Your task to perform on an android device: Go to battery settings Image 0: 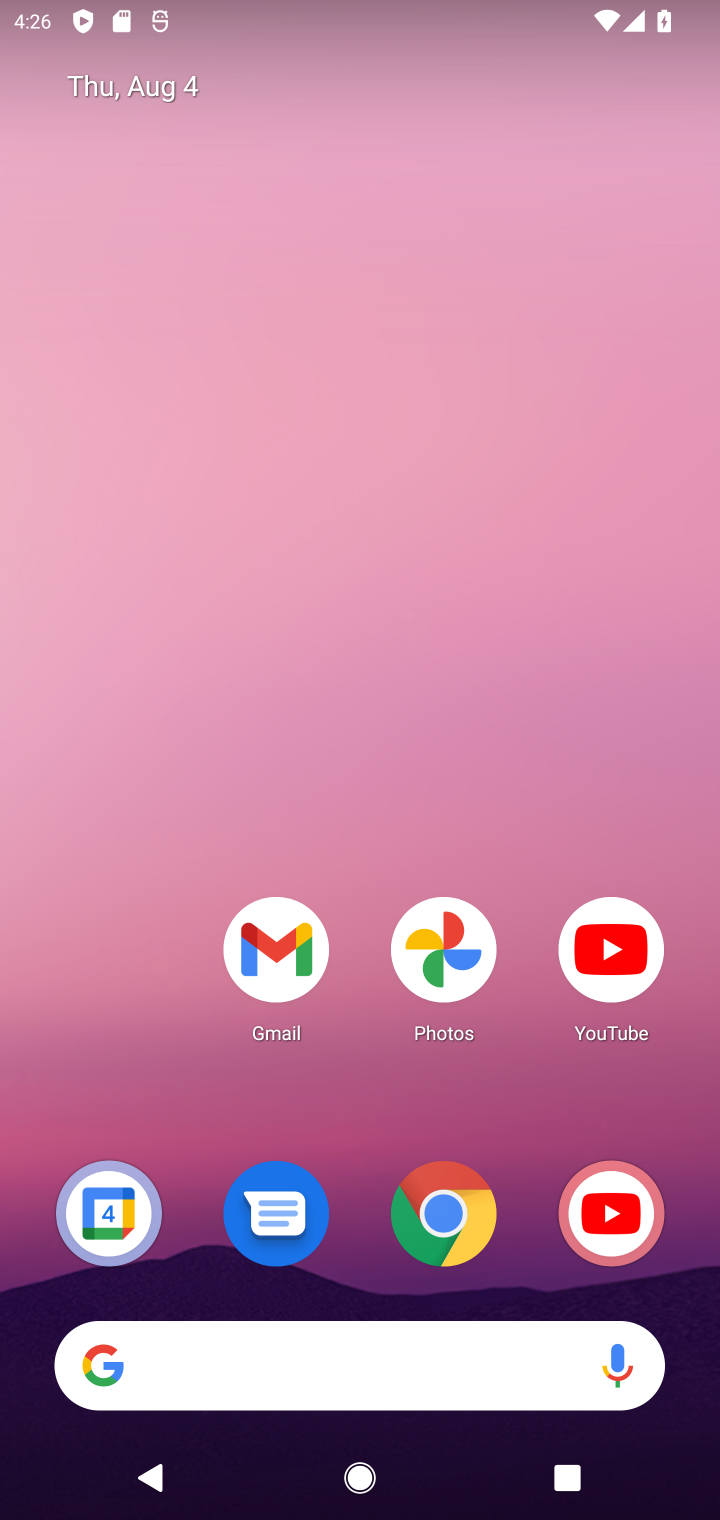
Step 0: press home button
Your task to perform on an android device: Go to battery settings Image 1: 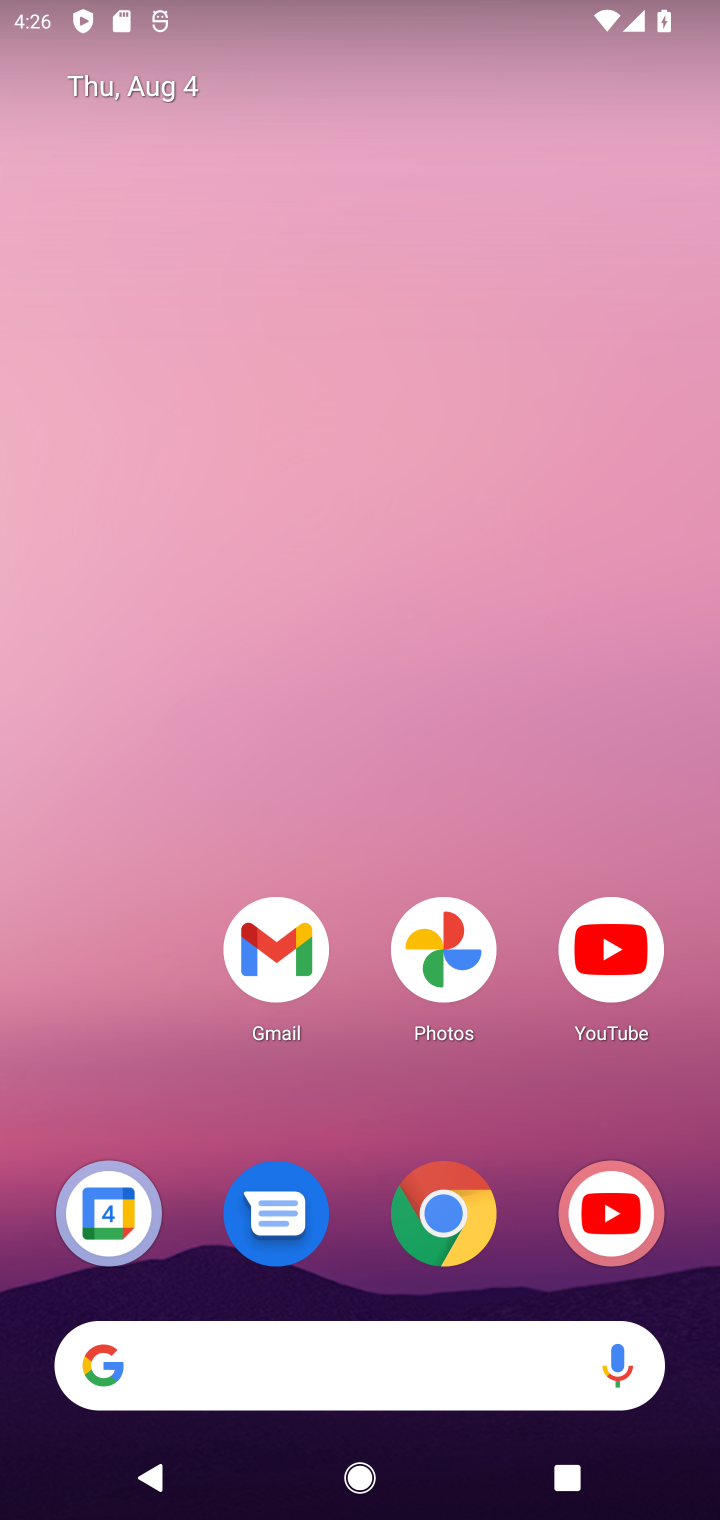
Step 1: drag from (57, 1101) to (106, 325)
Your task to perform on an android device: Go to battery settings Image 2: 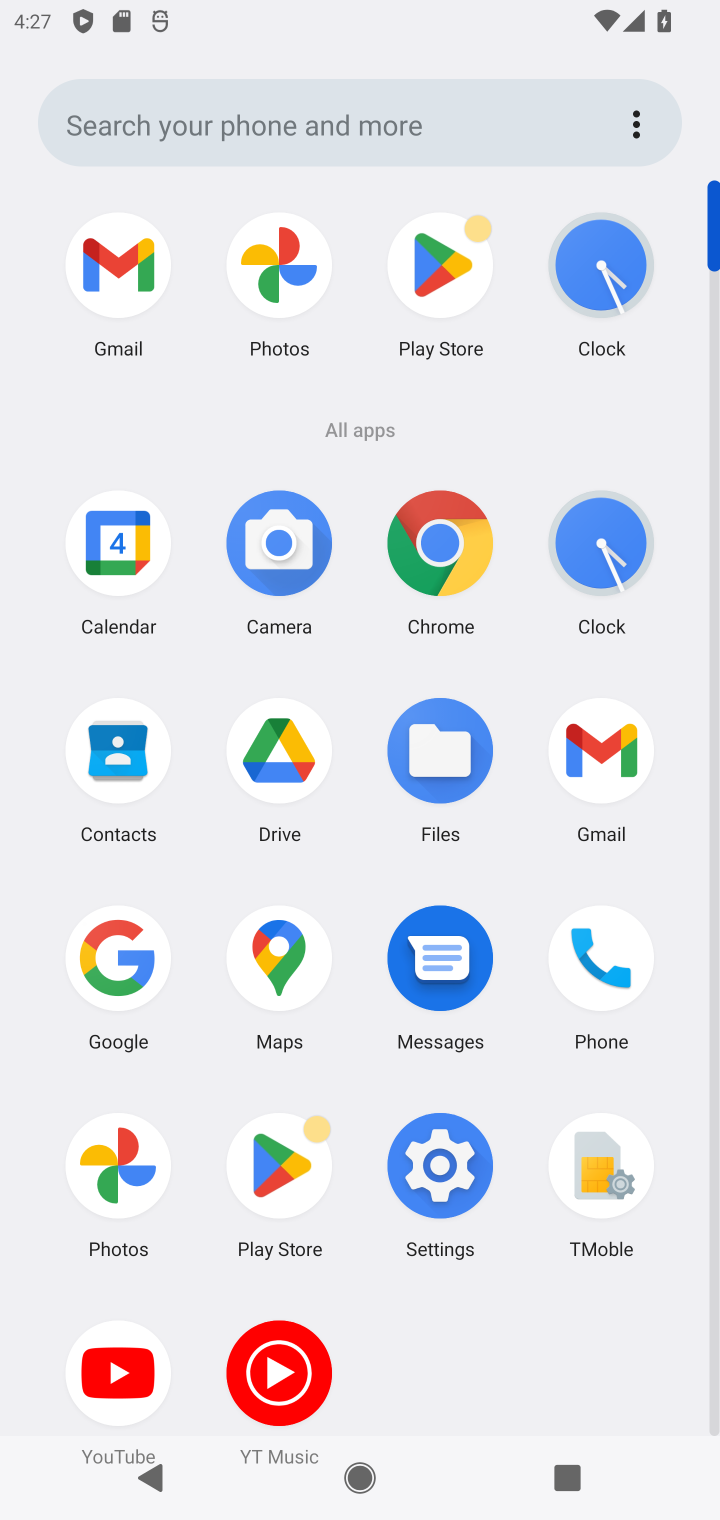
Step 2: click (448, 1172)
Your task to perform on an android device: Go to battery settings Image 3: 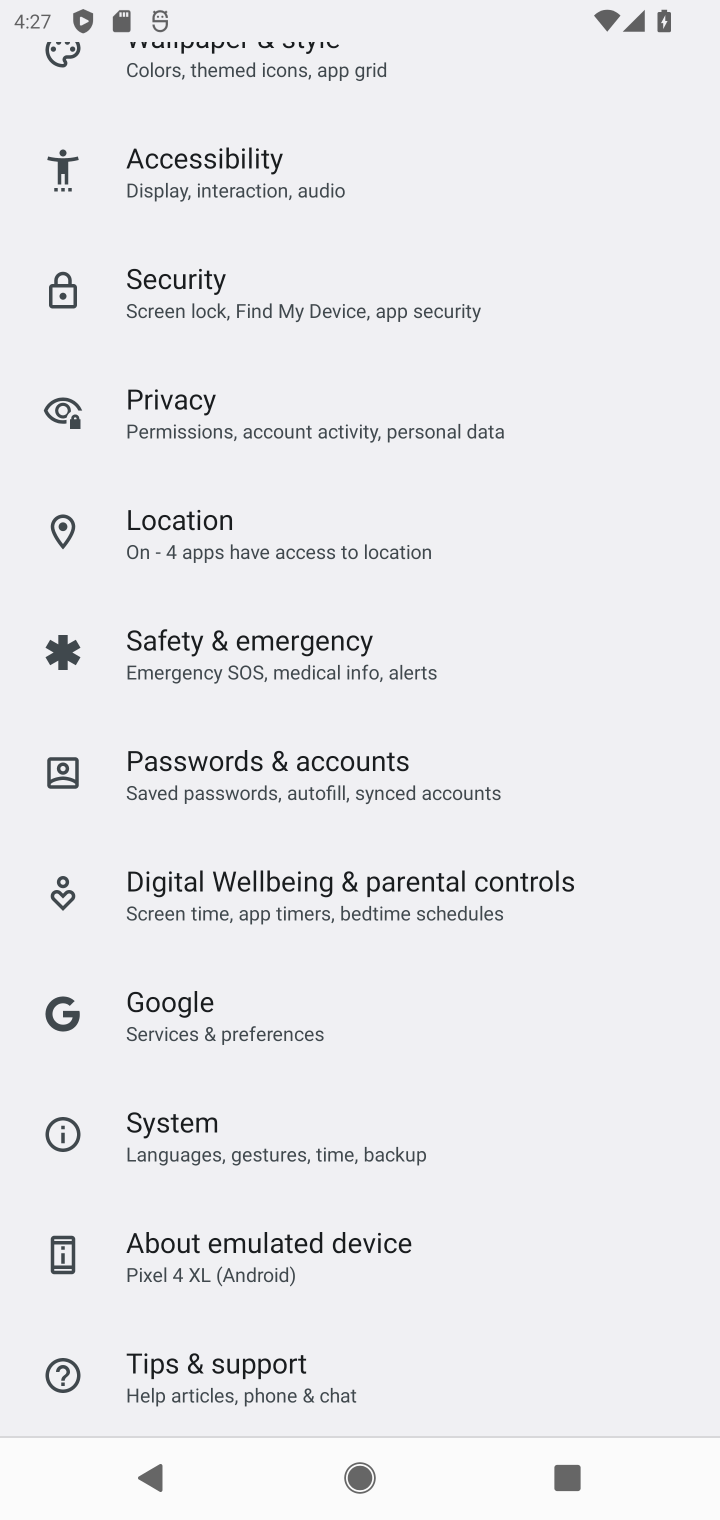
Step 3: drag from (515, 1190) to (588, 894)
Your task to perform on an android device: Go to battery settings Image 4: 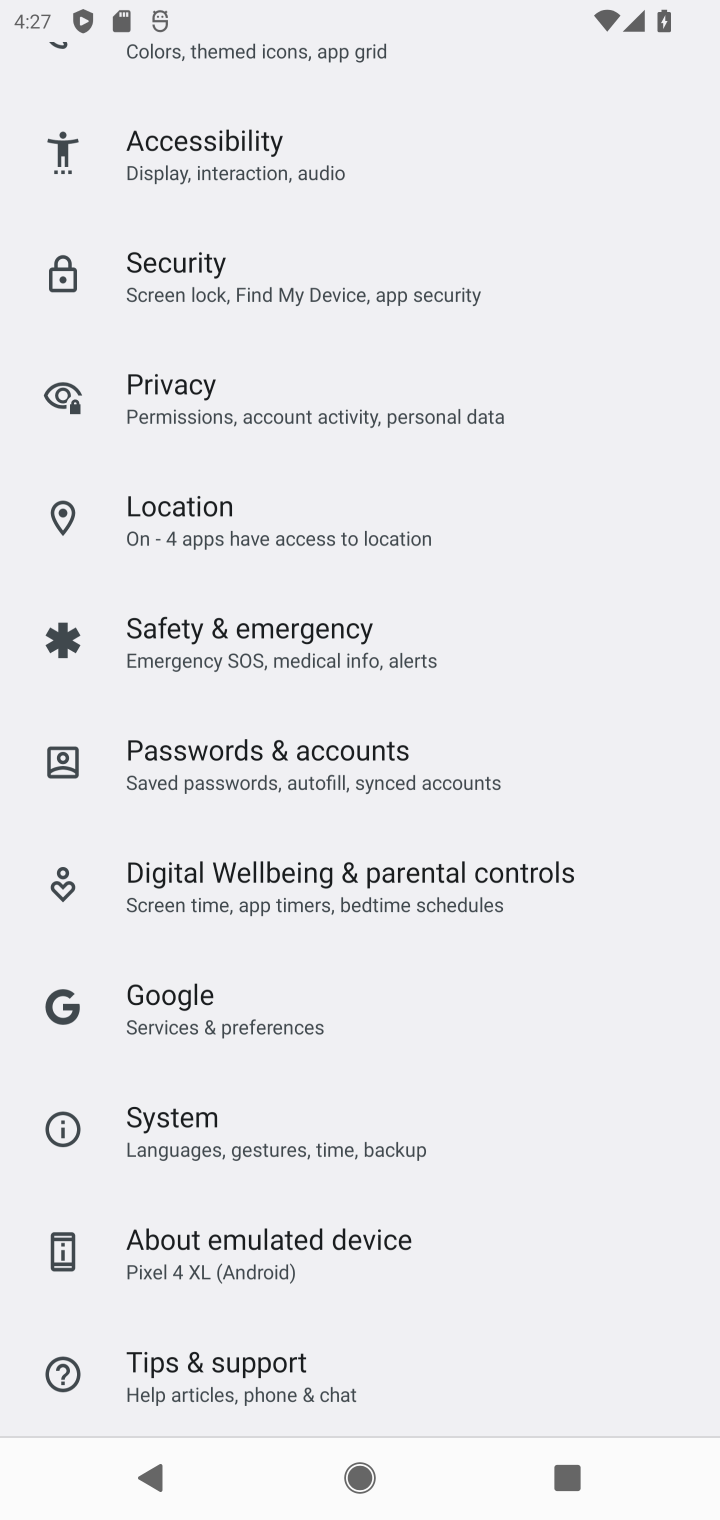
Step 4: drag from (586, 594) to (590, 841)
Your task to perform on an android device: Go to battery settings Image 5: 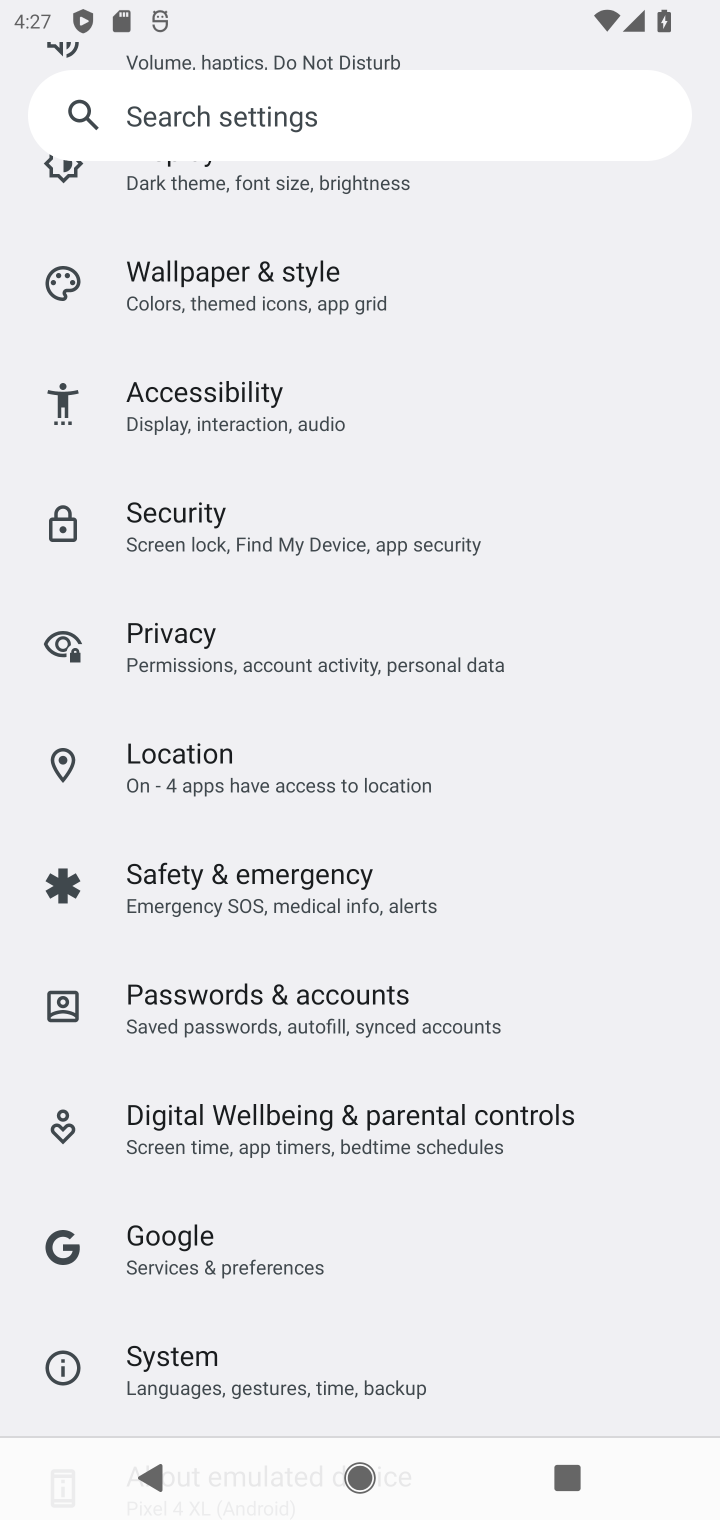
Step 5: drag from (595, 499) to (613, 797)
Your task to perform on an android device: Go to battery settings Image 6: 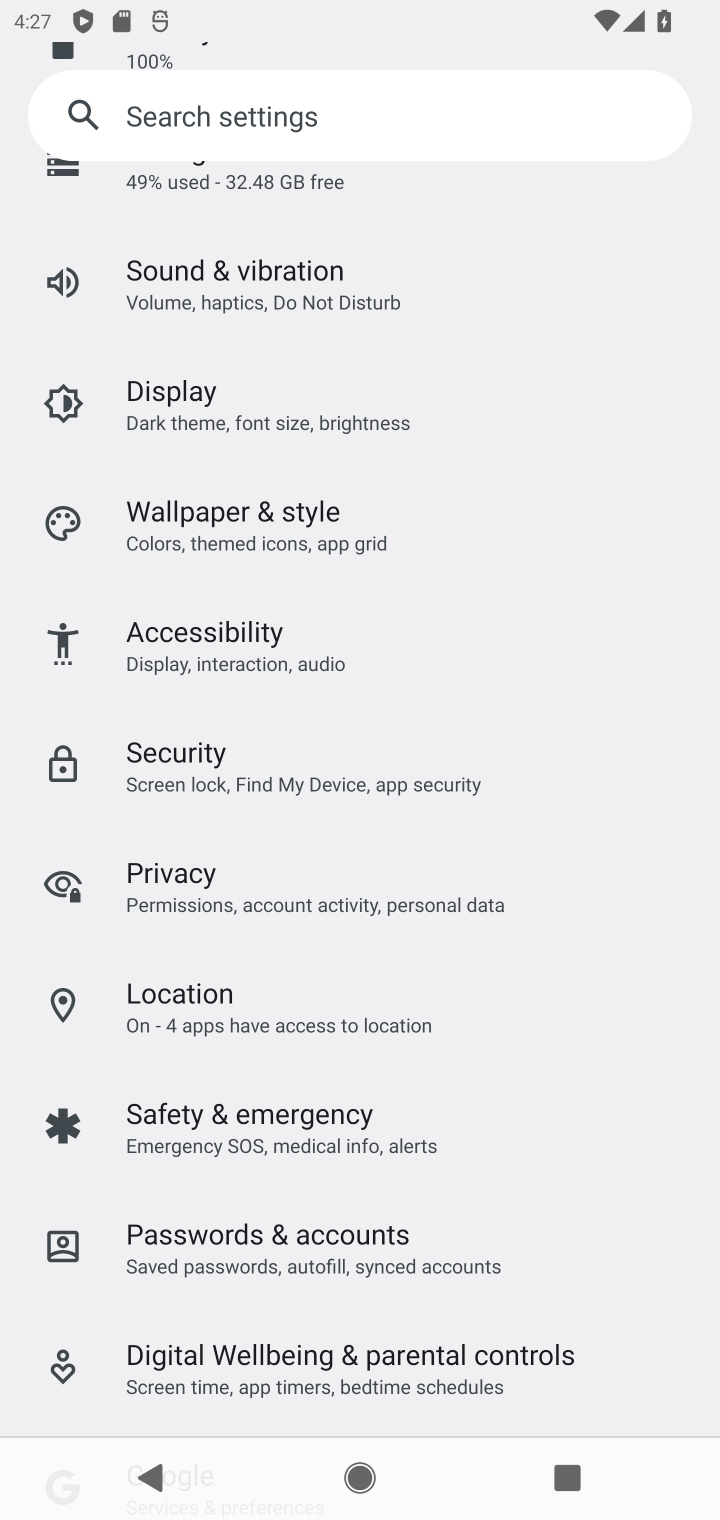
Step 6: drag from (592, 437) to (596, 752)
Your task to perform on an android device: Go to battery settings Image 7: 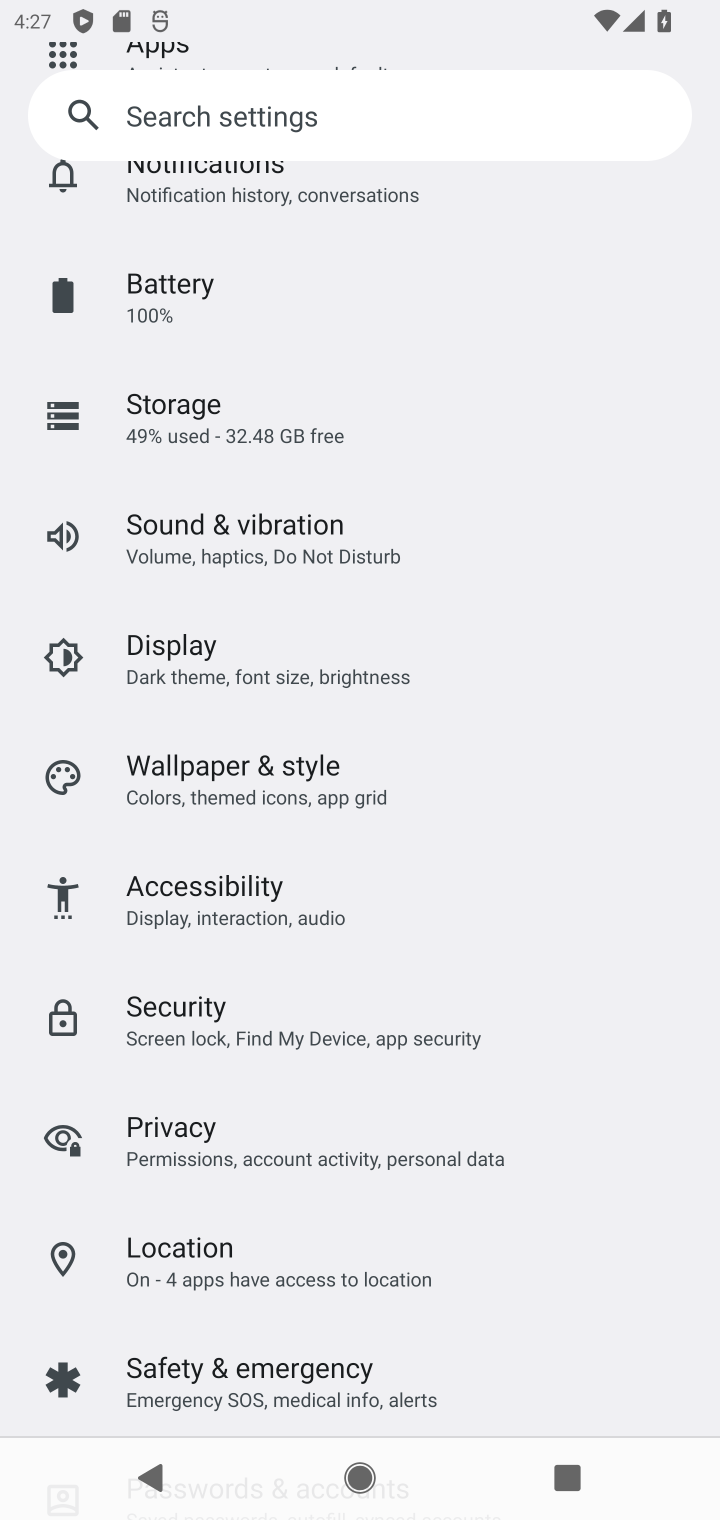
Step 7: drag from (575, 516) to (573, 804)
Your task to perform on an android device: Go to battery settings Image 8: 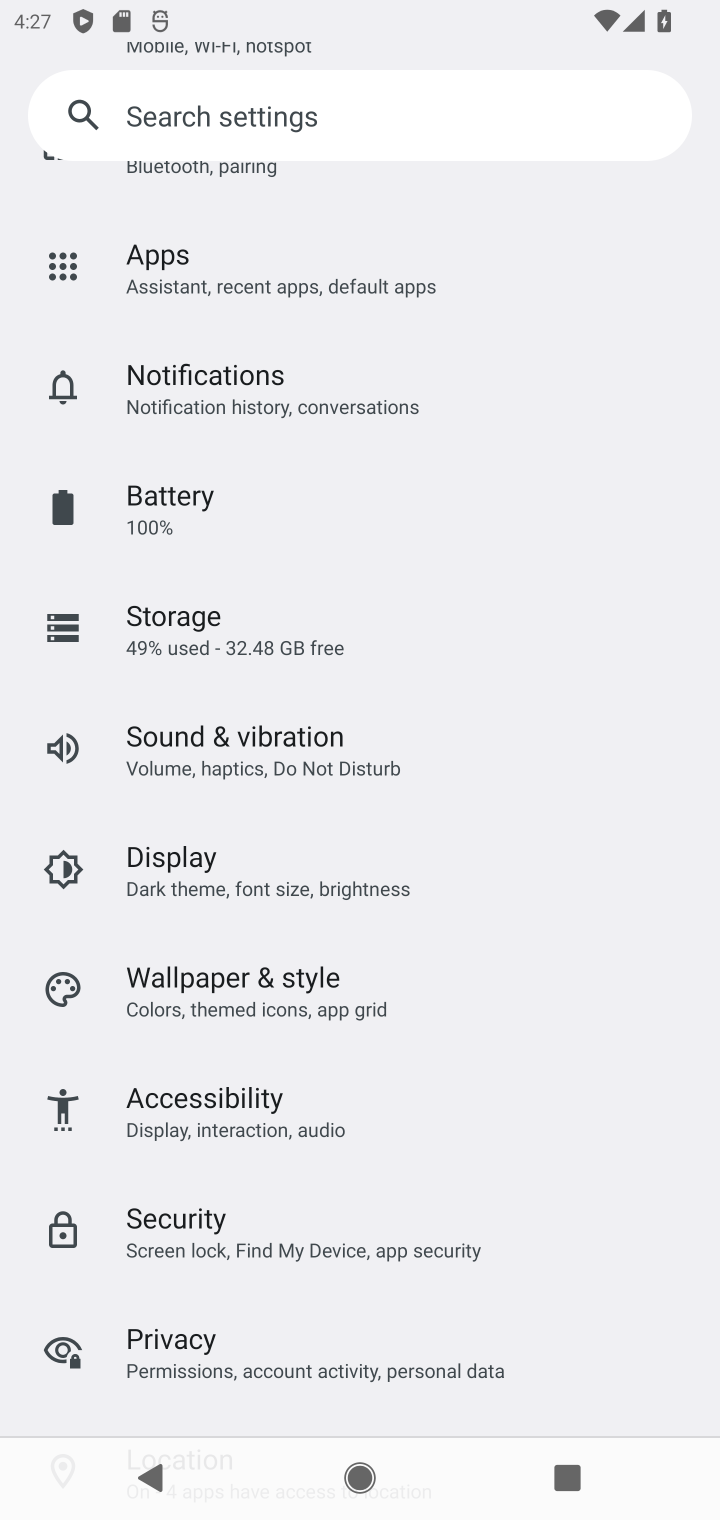
Step 8: drag from (598, 439) to (582, 1033)
Your task to perform on an android device: Go to battery settings Image 9: 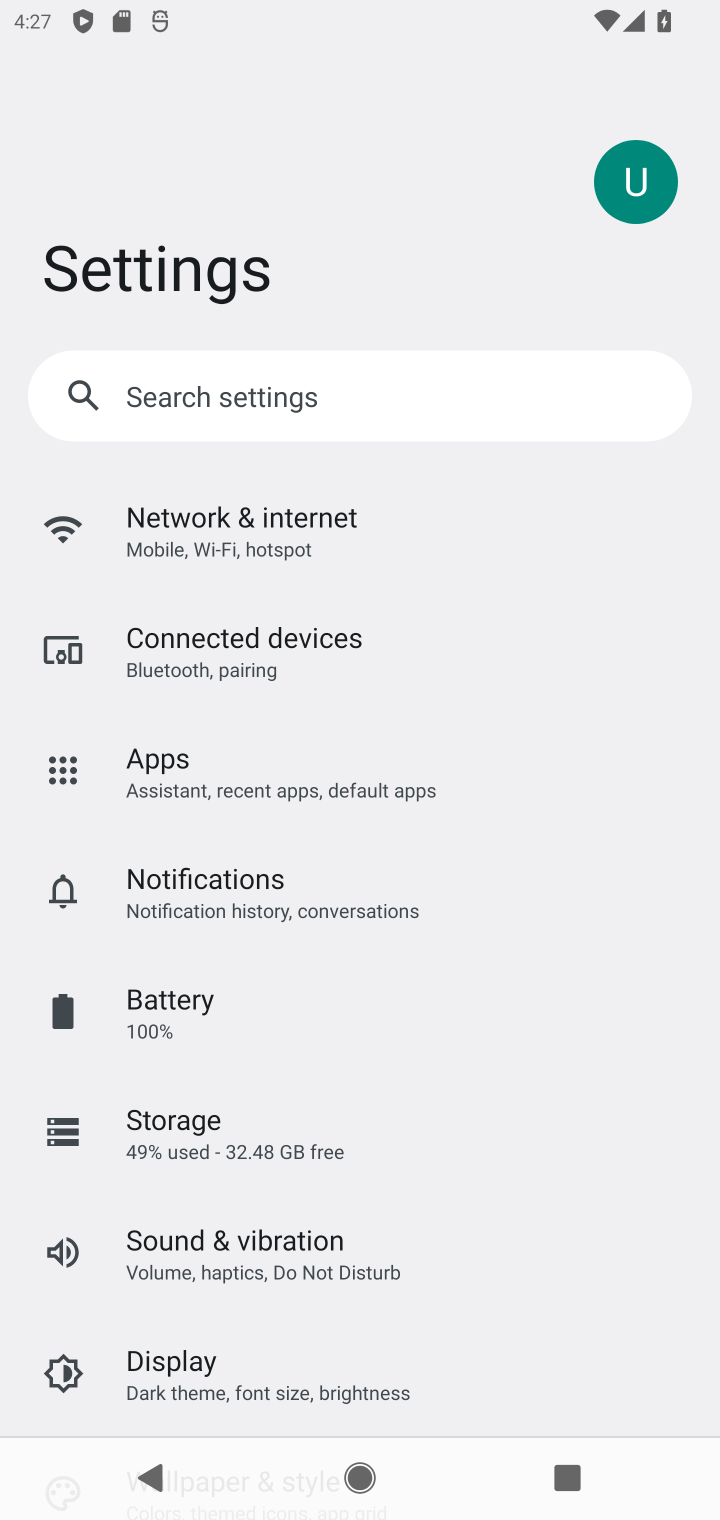
Step 9: click (241, 1021)
Your task to perform on an android device: Go to battery settings Image 10: 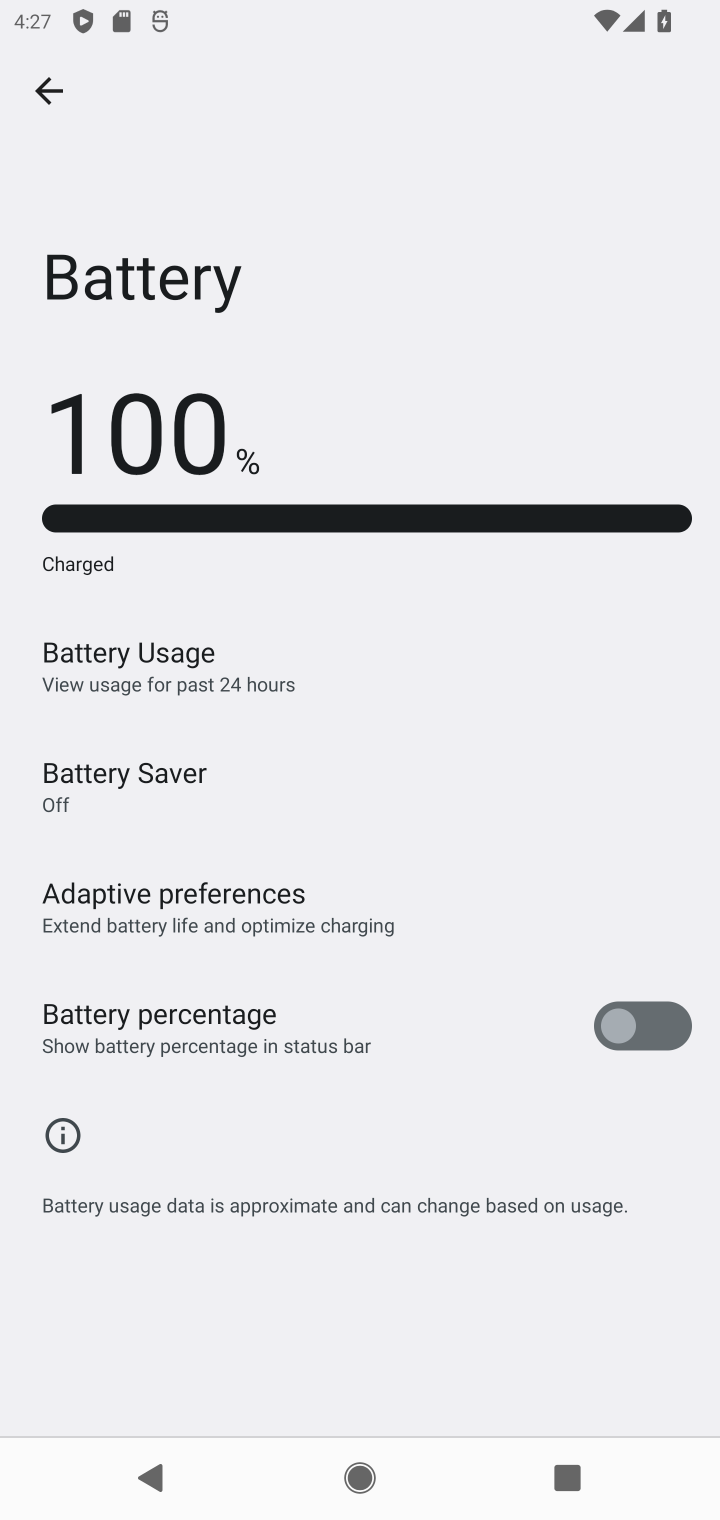
Step 10: task complete